Your task to perform on an android device: toggle show notifications on the lock screen Image 0: 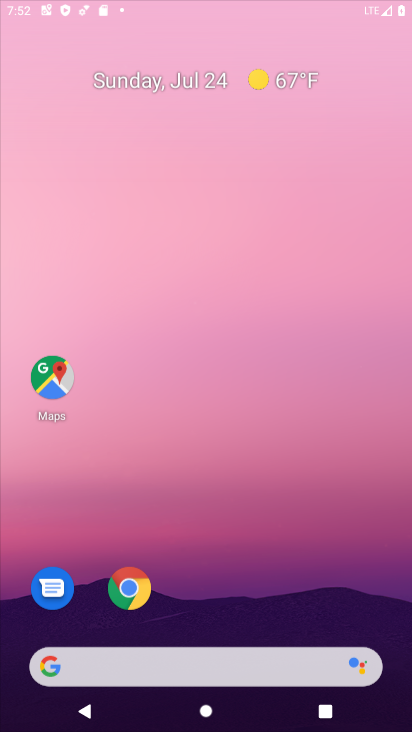
Step 0: click (201, 298)
Your task to perform on an android device: toggle show notifications on the lock screen Image 1: 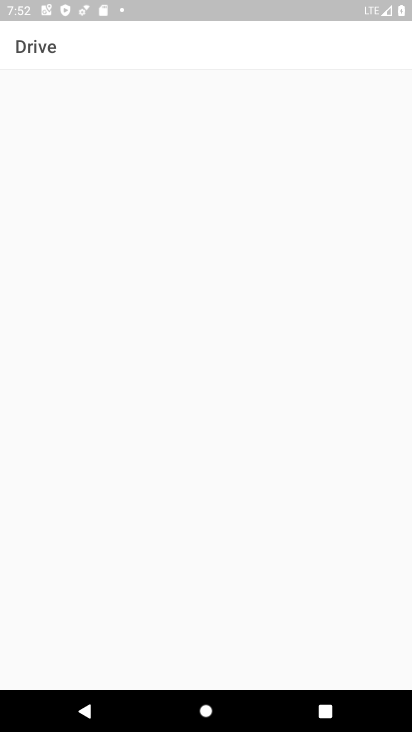
Step 1: press home button
Your task to perform on an android device: toggle show notifications on the lock screen Image 2: 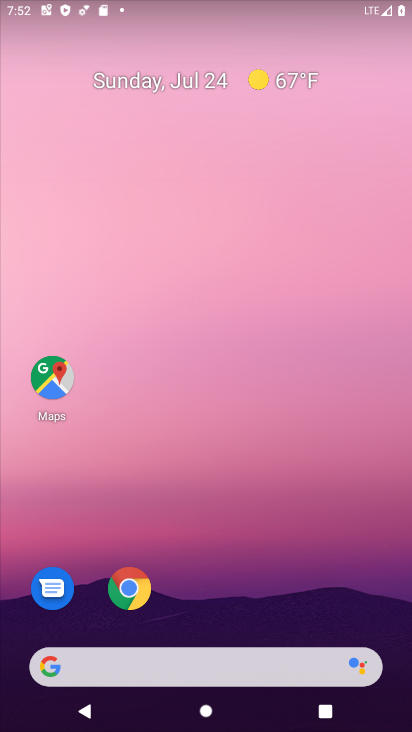
Step 2: drag from (207, 660) to (297, 296)
Your task to perform on an android device: toggle show notifications on the lock screen Image 3: 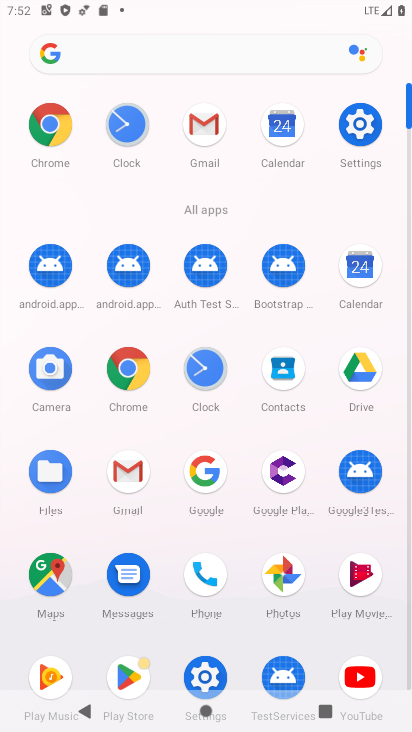
Step 3: click (367, 126)
Your task to perform on an android device: toggle show notifications on the lock screen Image 4: 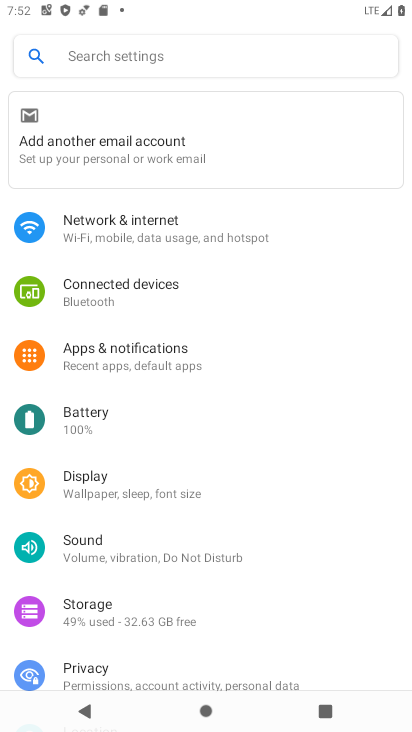
Step 4: click (125, 249)
Your task to perform on an android device: toggle show notifications on the lock screen Image 5: 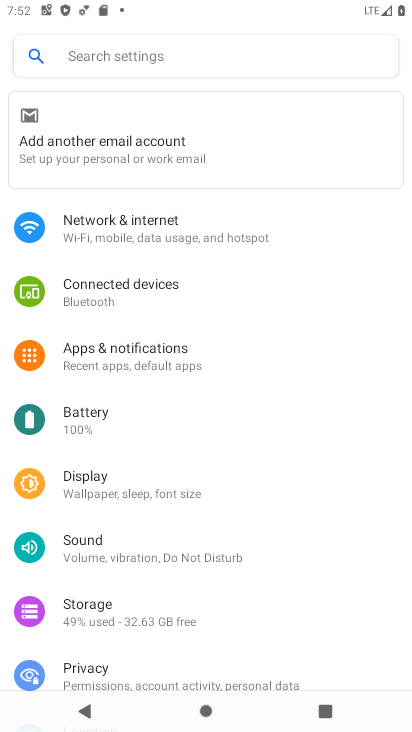
Step 5: click (131, 370)
Your task to perform on an android device: toggle show notifications on the lock screen Image 6: 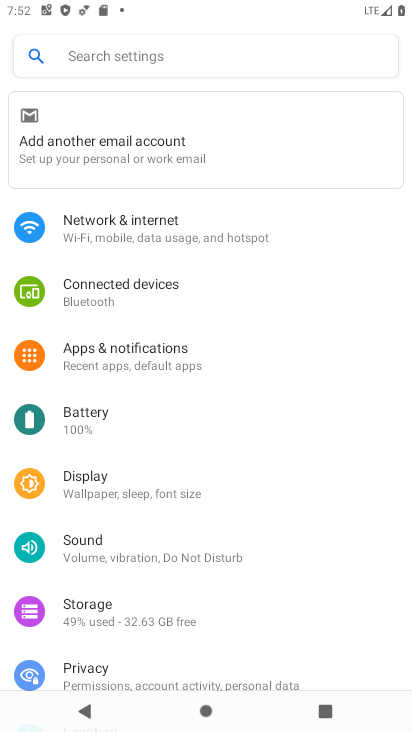
Step 6: click (131, 370)
Your task to perform on an android device: toggle show notifications on the lock screen Image 7: 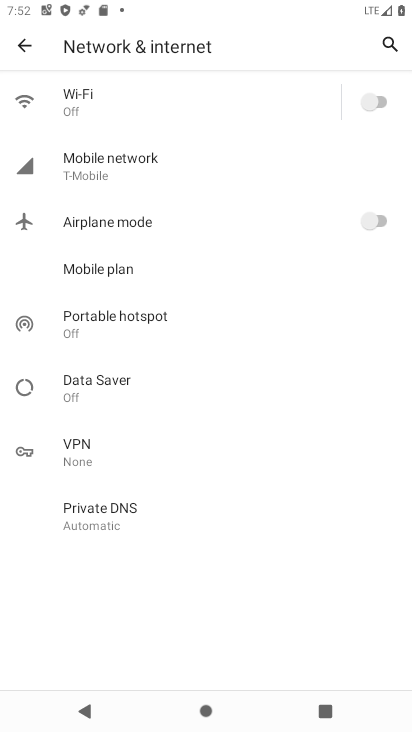
Step 7: click (27, 26)
Your task to perform on an android device: toggle show notifications on the lock screen Image 8: 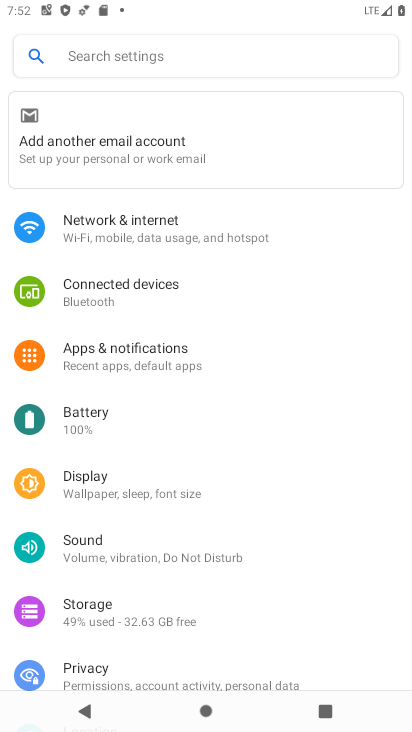
Step 8: click (151, 354)
Your task to perform on an android device: toggle show notifications on the lock screen Image 9: 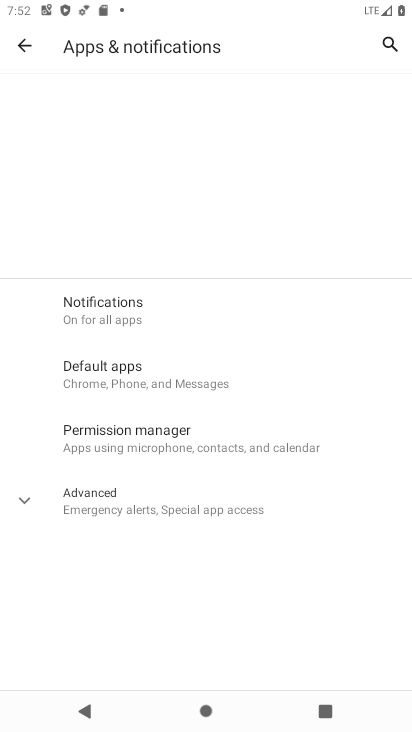
Step 9: click (162, 316)
Your task to perform on an android device: toggle show notifications on the lock screen Image 10: 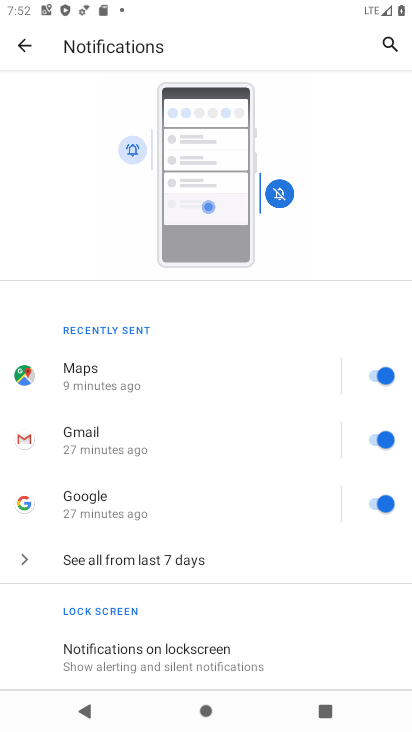
Step 10: click (131, 657)
Your task to perform on an android device: toggle show notifications on the lock screen Image 11: 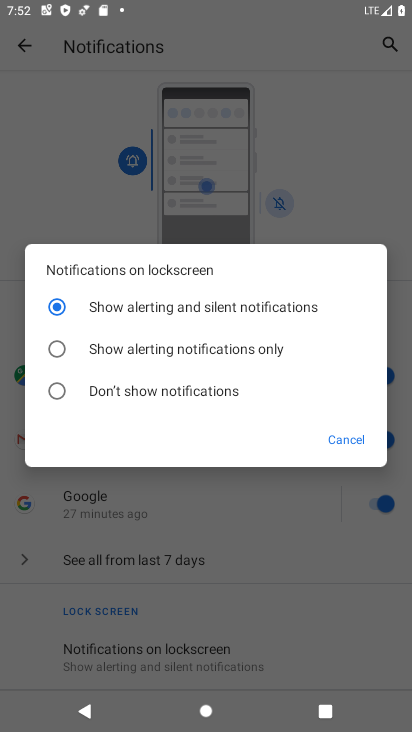
Step 11: click (138, 382)
Your task to perform on an android device: toggle show notifications on the lock screen Image 12: 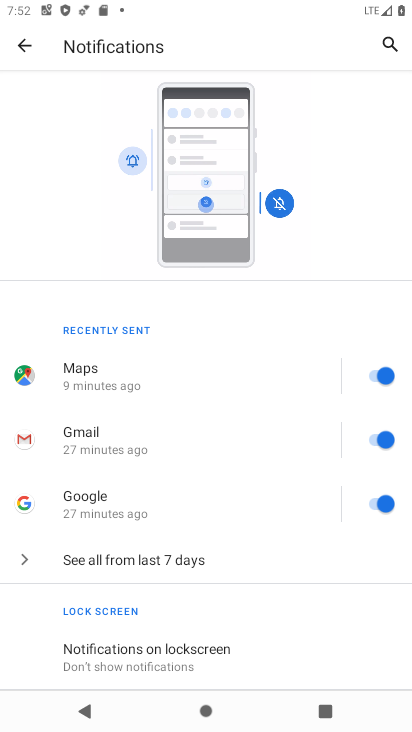
Step 12: task complete